Your task to perform on an android device: Open Youtube and go to the subscriptions tab Image 0: 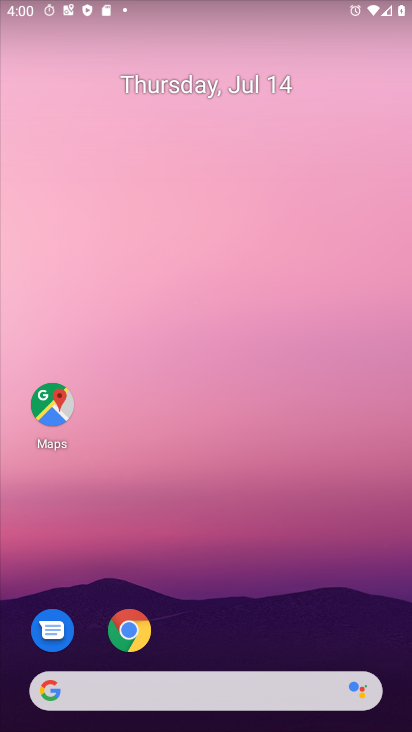
Step 0: drag from (214, 727) to (236, 190)
Your task to perform on an android device: Open Youtube and go to the subscriptions tab Image 1: 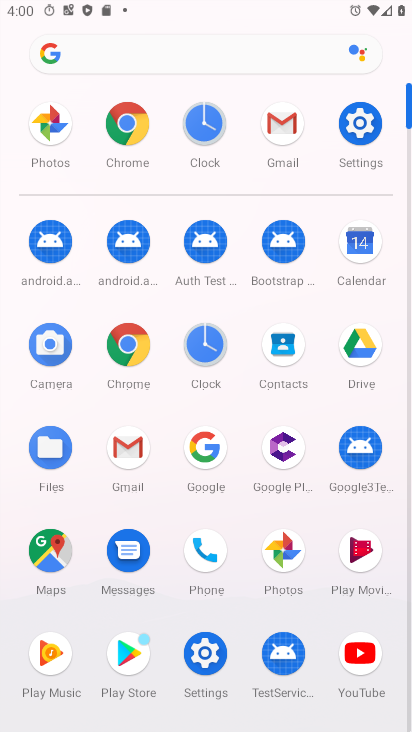
Step 1: click (366, 649)
Your task to perform on an android device: Open Youtube and go to the subscriptions tab Image 2: 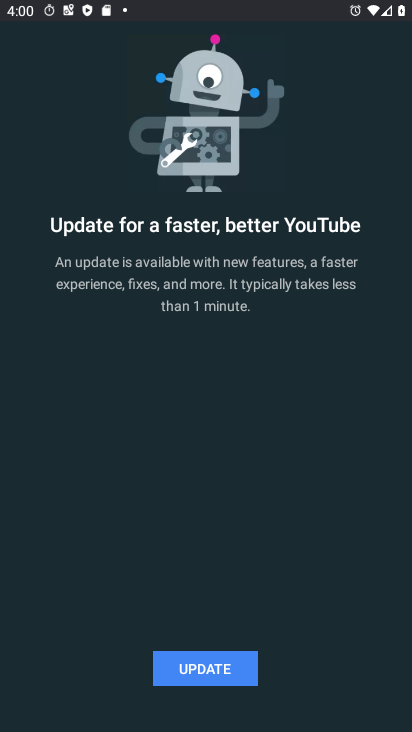
Step 2: task complete